Your task to perform on an android device: change the clock display to show seconds Image 0: 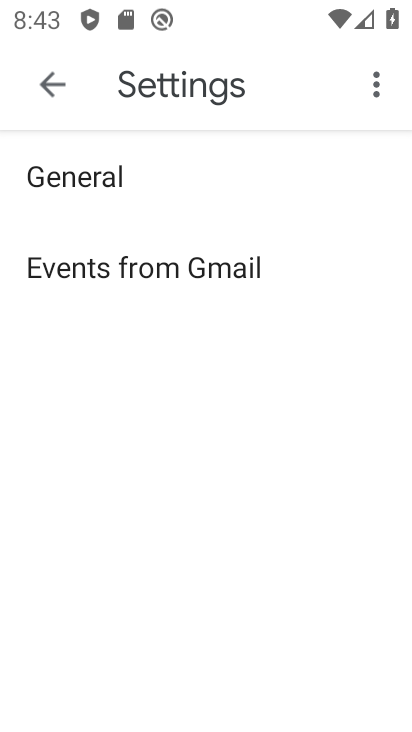
Step 0: press home button
Your task to perform on an android device: change the clock display to show seconds Image 1: 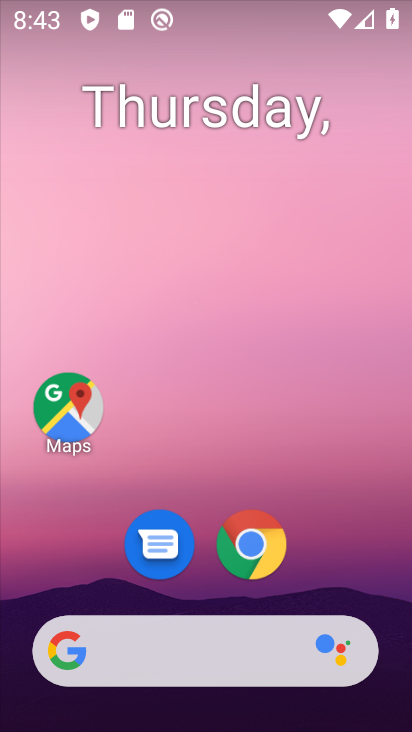
Step 1: drag from (193, 691) to (226, 167)
Your task to perform on an android device: change the clock display to show seconds Image 2: 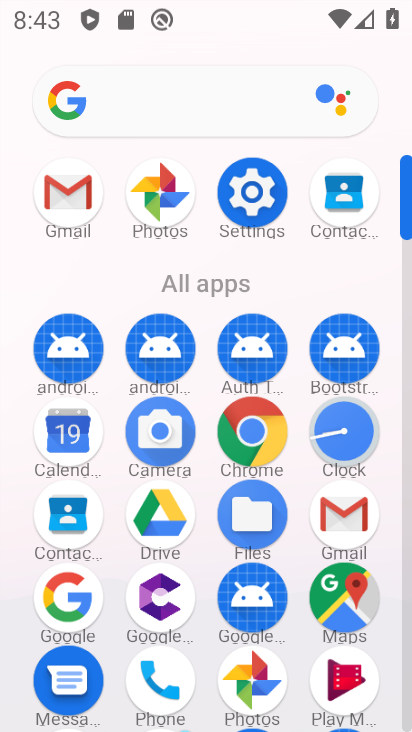
Step 2: click (346, 442)
Your task to perform on an android device: change the clock display to show seconds Image 3: 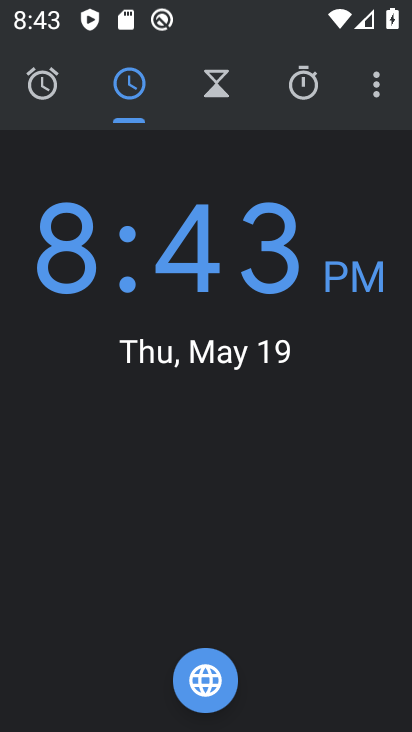
Step 3: click (376, 93)
Your task to perform on an android device: change the clock display to show seconds Image 4: 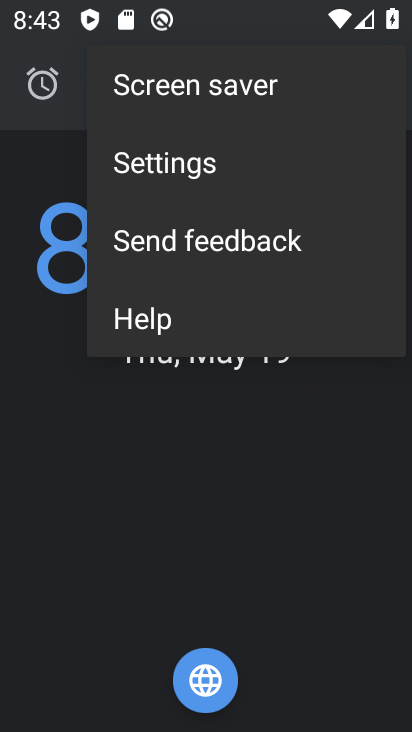
Step 4: click (254, 178)
Your task to perform on an android device: change the clock display to show seconds Image 5: 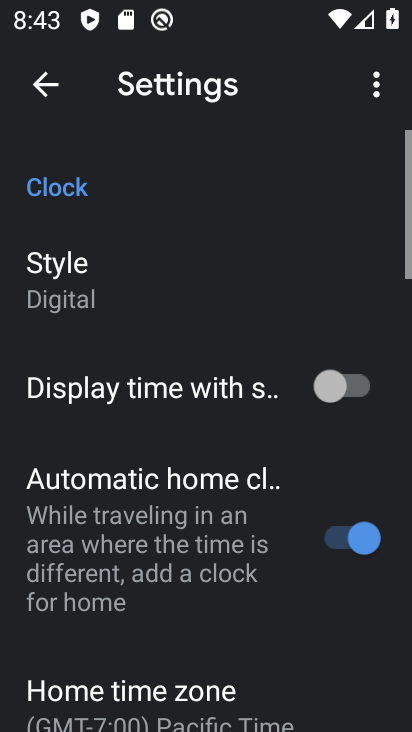
Step 5: click (351, 380)
Your task to perform on an android device: change the clock display to show seconds Image 6: 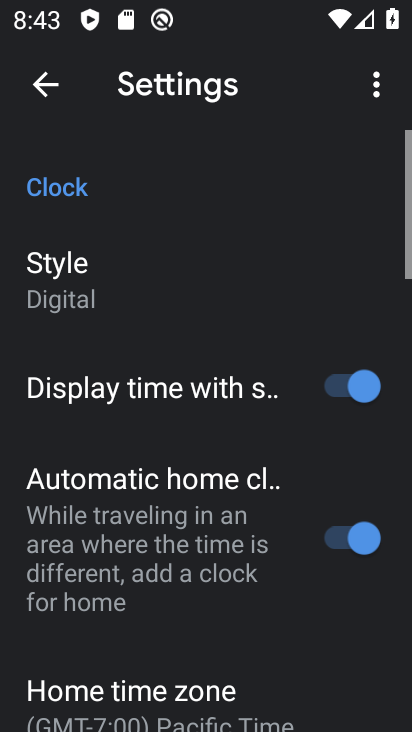
Step 6: task complete